Your task to perform on an android device: turn on the 12-hour format for clock Image 0: 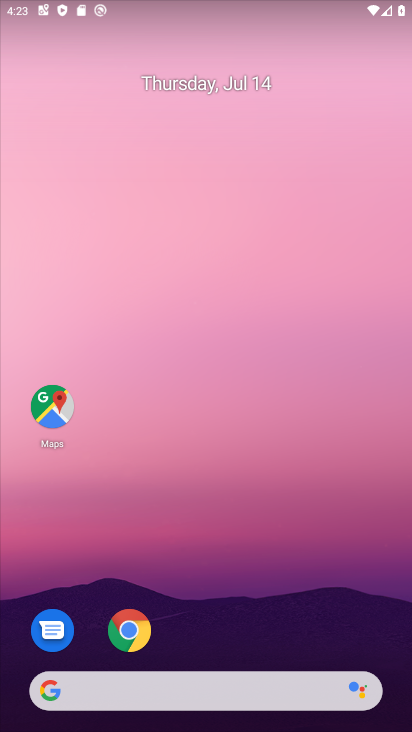
Step 0: drag from (231, 590) to (269, 21)
Your task to perform on an android device: turn on the 12-hour format for clock Image 1: 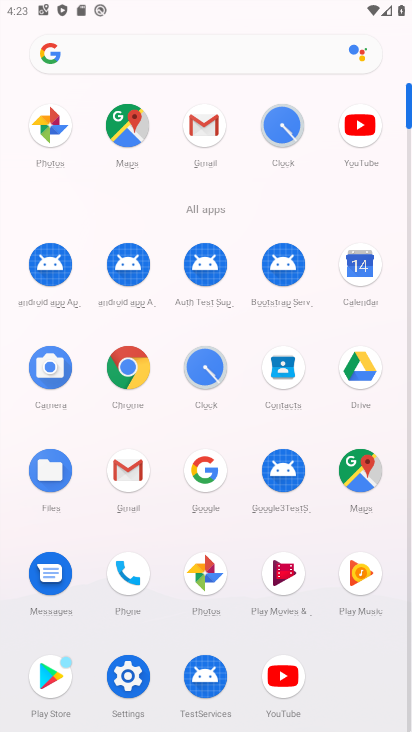
Step 1: click (213, 363)
Your task to perform on an android device: turn on the 12-hour format for clock Image 2: 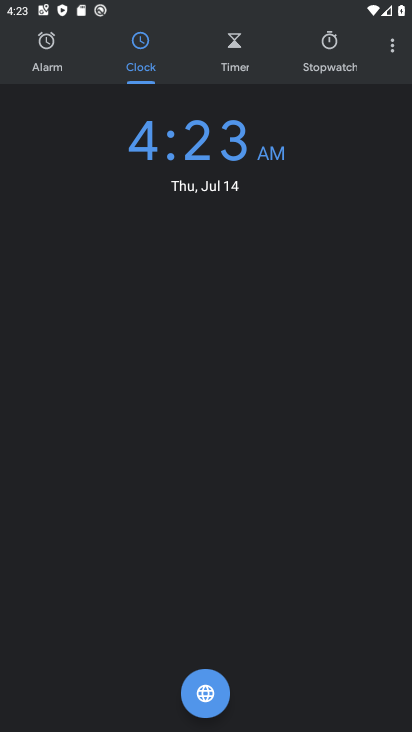
Step 2: click (396, 44)
Your task to perform on an android device: turn on the 12-hour format for clock Image 3: 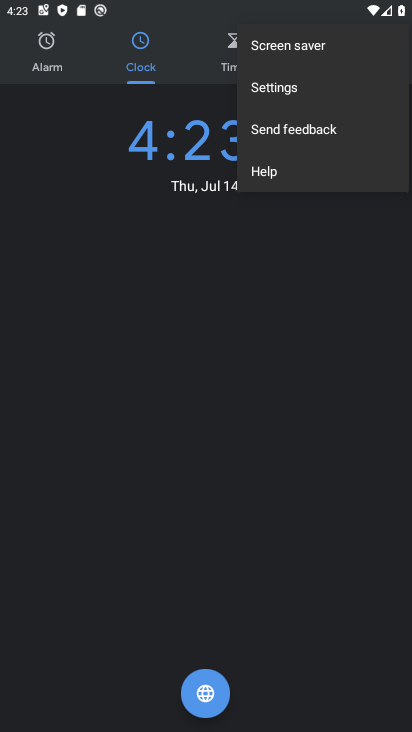
Step 3: click (307, 90)
Your task to perform on an android device: turn on the 12-hour format for clock Image 4: 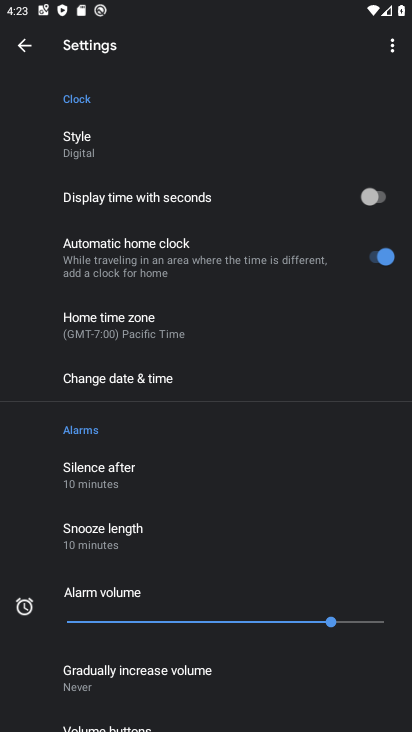
Step 4: click (149, 378)
Your task to perform on an android device: turn on the 12-hour format for clock Image 5: 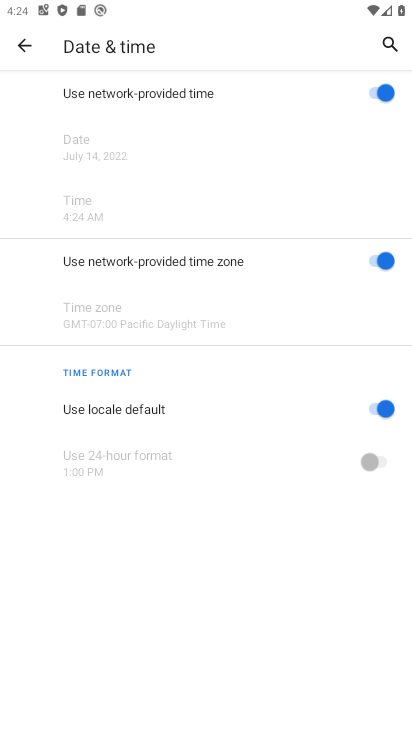
Step 5: task complete